Your task to perform on an android device: toggle notification dots Image 0: 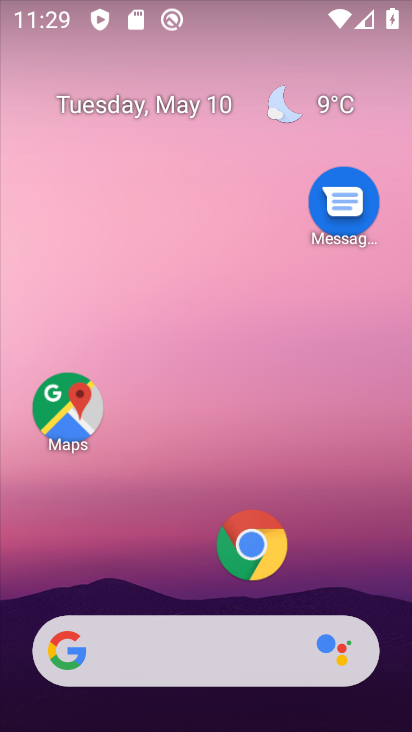
Step 0: drag from (159, 610) to (245, 205)
Your task to perform on an android device: toggle notification dots Image 1: 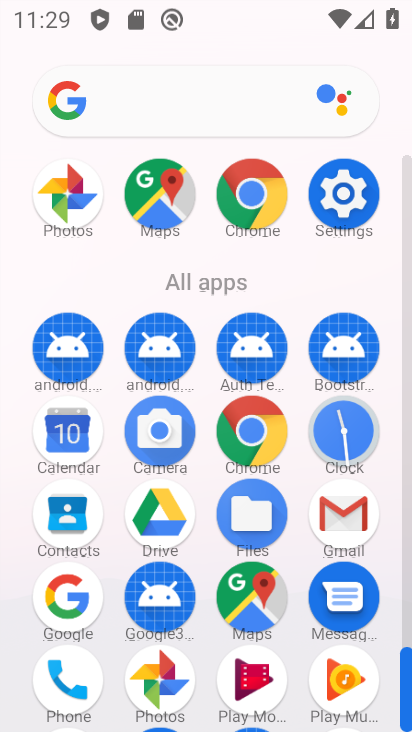
Step 1: click (349, 177)
Your task to perform on an android device: toggle notification dots Image 2: 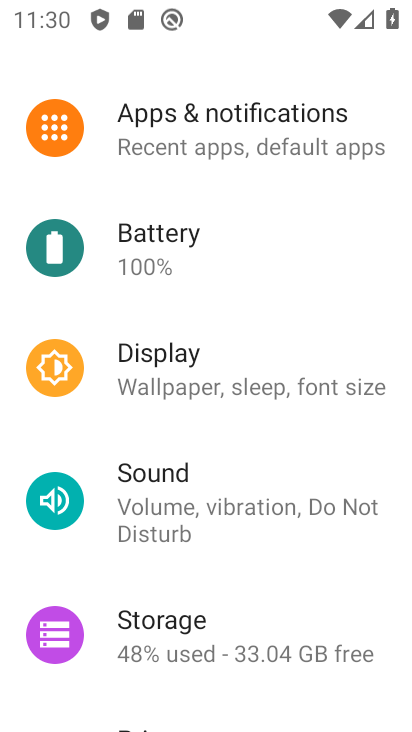
Step 2: drag from (242, 203) to (269, 390)
Your task to perform on an android device: toggle notification dots Image 3: 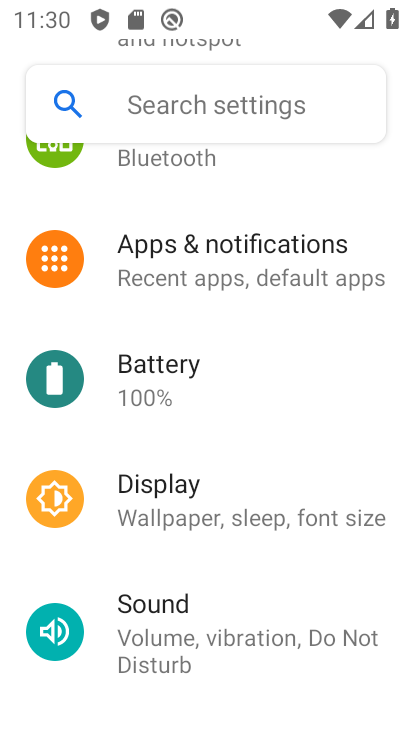
Step 3: click (292, 290)
Your task to perform on an android device: toggle notification dots Image 4: 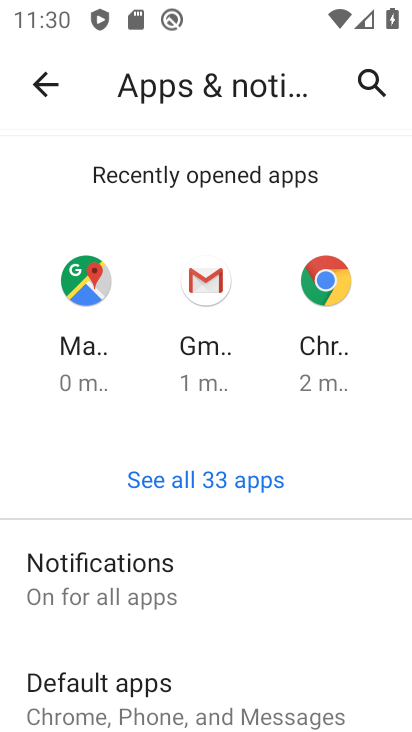
Step 4: drag from (164, 615) to (228, 347)
Your task to perform on an android device: toggle notification dots Image 5: 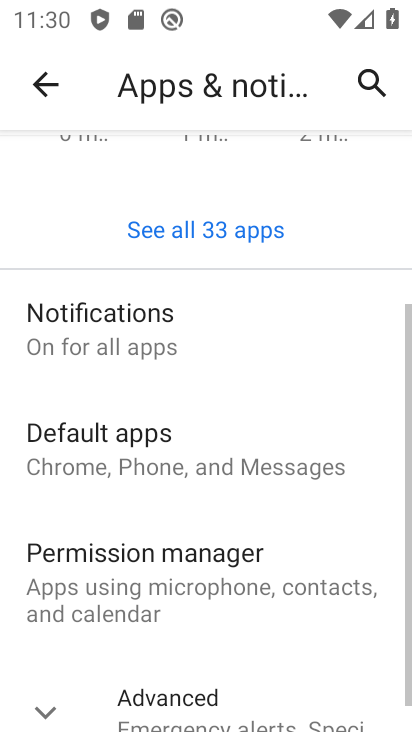
Step 5: click (186, 328)
Your task to perform on an android device: toggle notification dots Image 6: 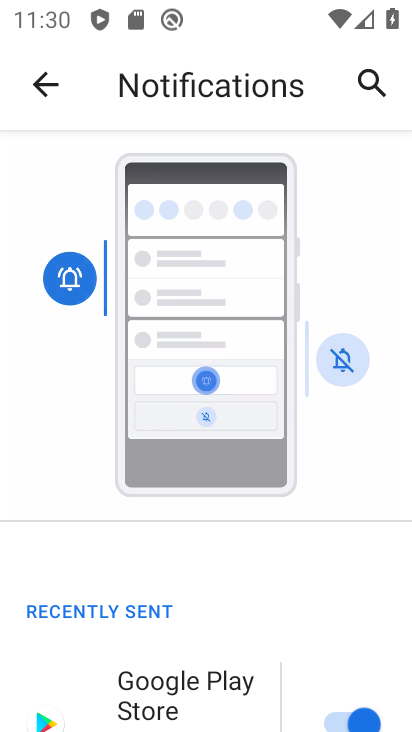
Step 6: drag from (129, 642) to (235, 176)
Your task to perform on an android device: toggle notification dots Image 7: 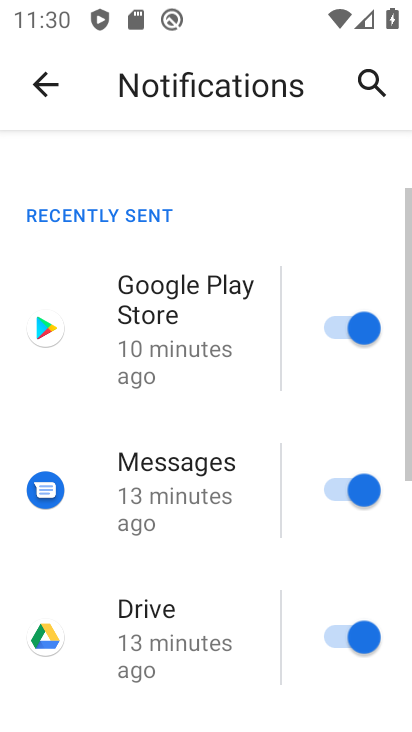
Step 7: drag from (64, 686) to (158, 190)
Your task to perform on an android device: toggle notification dots Image 8: 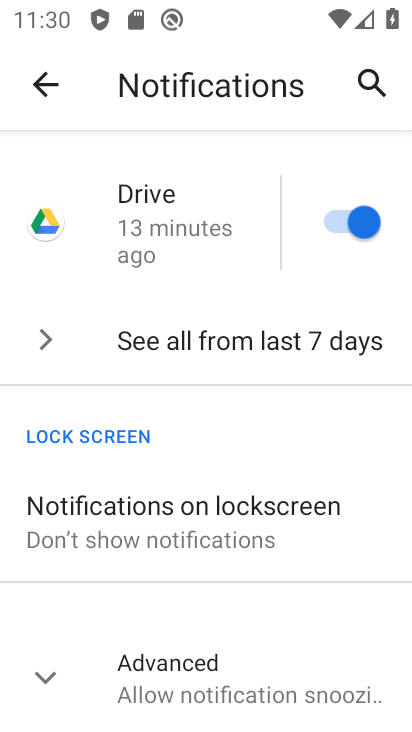
Step 8: click (192, 680)
Your task to perform on an android device: toggle notification dots Image 9: 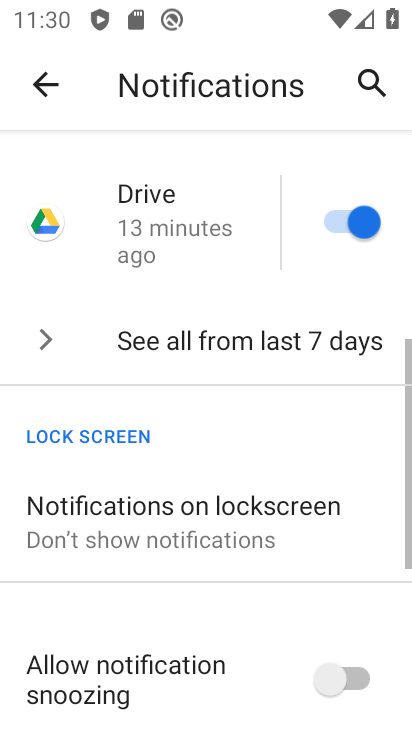
Step 9: drag from (194, 660) to (290, 265)
Your task to perform on an android device: toggle notification dots Image 10: 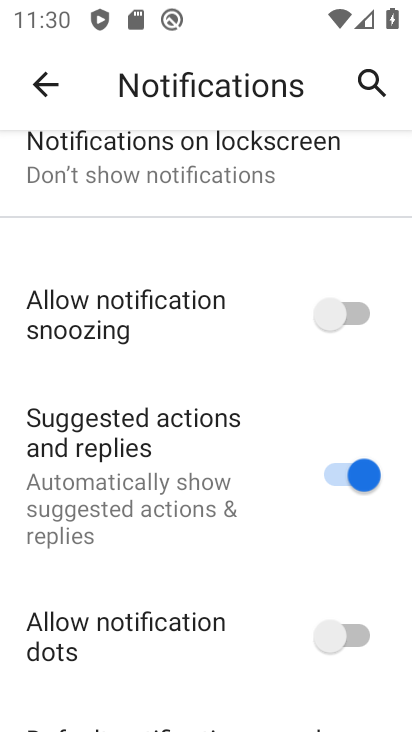
Step 10: click (366, 630)
Your task to perform on an android device: toggle notification dots Image 11: 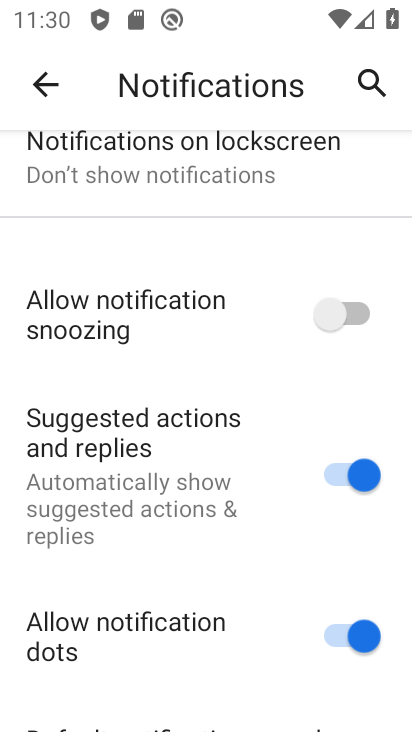
Step 11: task complete